Your task to perform on an android device: Go to network settings Image 0: 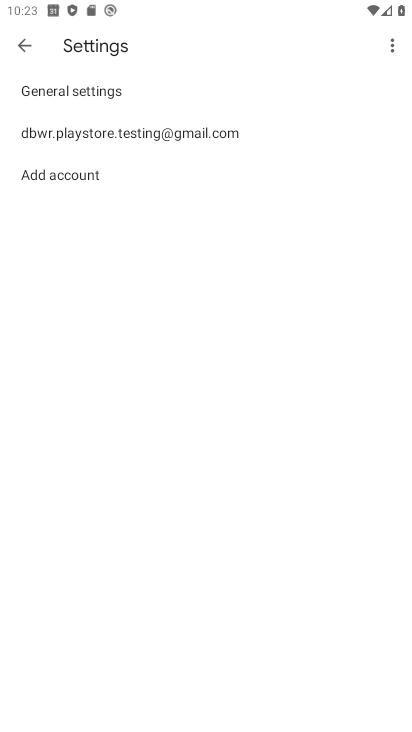
Step 0: press home button
Your task to perform on an android device: Go to network settings Image 1: 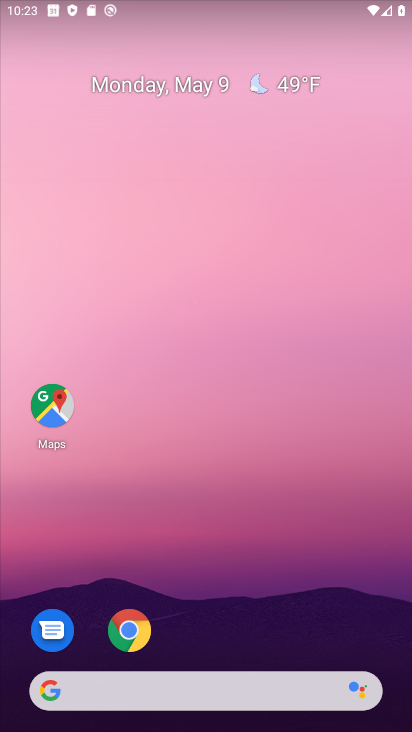
Step 1: drag from (214, 618) to (235, 168)
Your task to perform on an android device: Go to network settings Image 2: 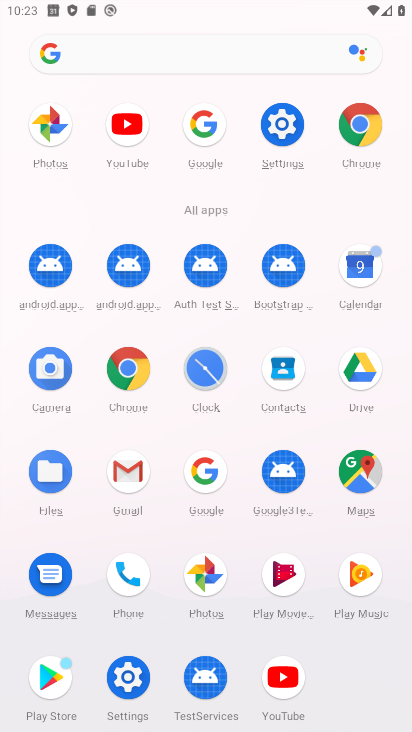
Step 2: click (267, 103)
Your task to perform on an android device: Go to network settings Image 3: 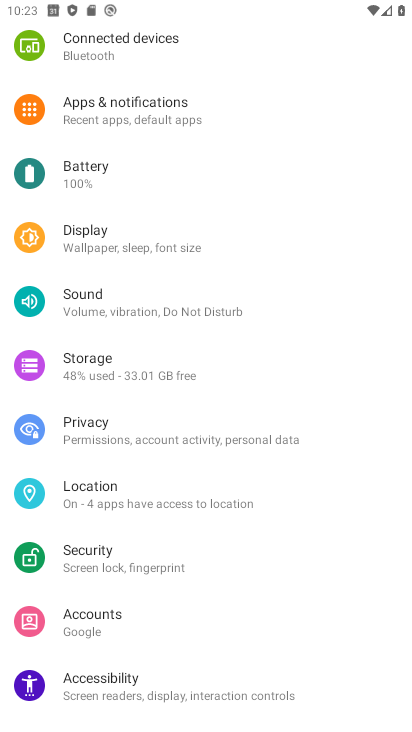
Step 3: drag from (202, 123) to (207, 584)
Your task to perform on an android device: Go to network settings Image 4: 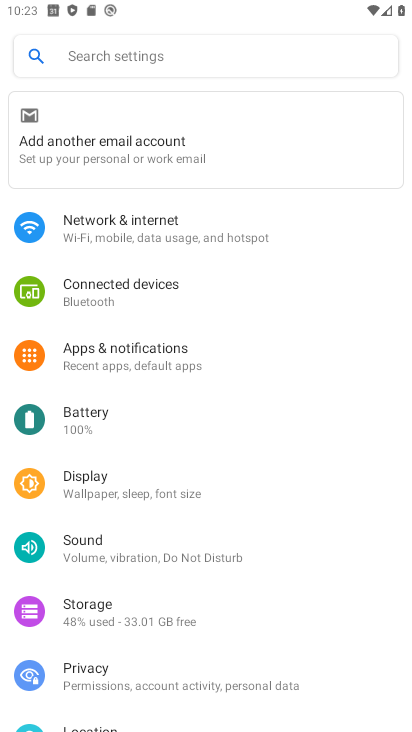
Step 4: click (201, 235)
Your task to perform on an android device: Go to network settings Image 5: 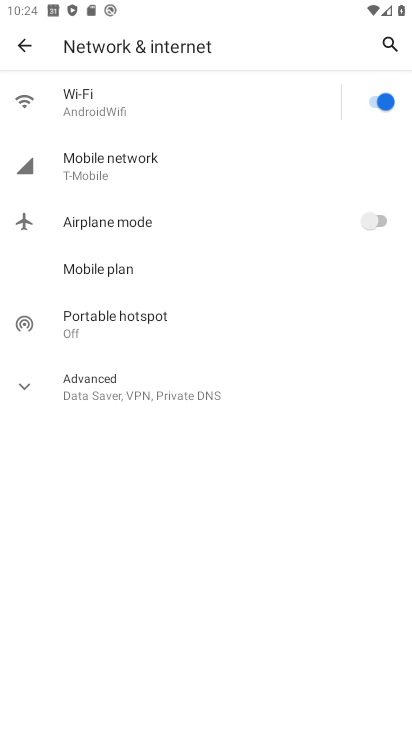
Step 5: click (191, 153)
Your task to perform on an android device: Go to network settings Image 6: 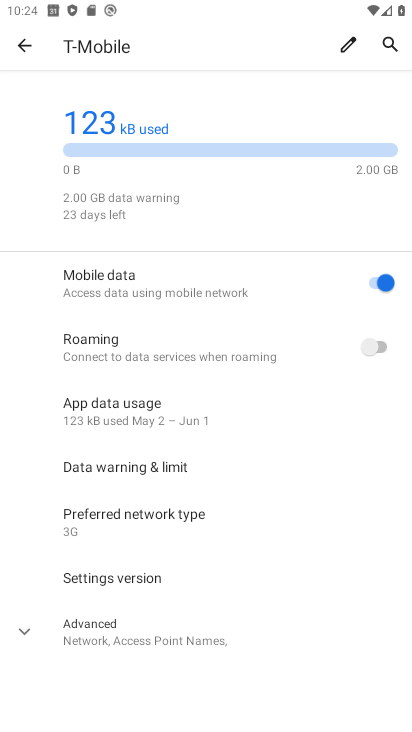
Step 6: task complete